Your task to perform on an android device: Add "logitech g933" to the cart on amazon.com Image 0: 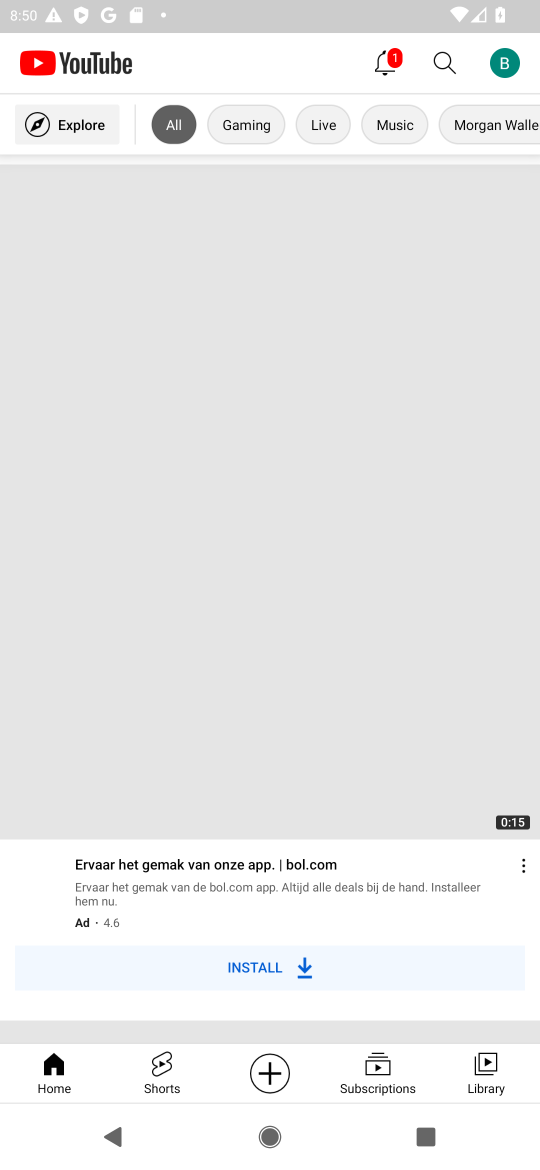
Step 0: press home button
Your task to perform on an android device: Add "logitech g933" to the cart on amazon.com Image 1: 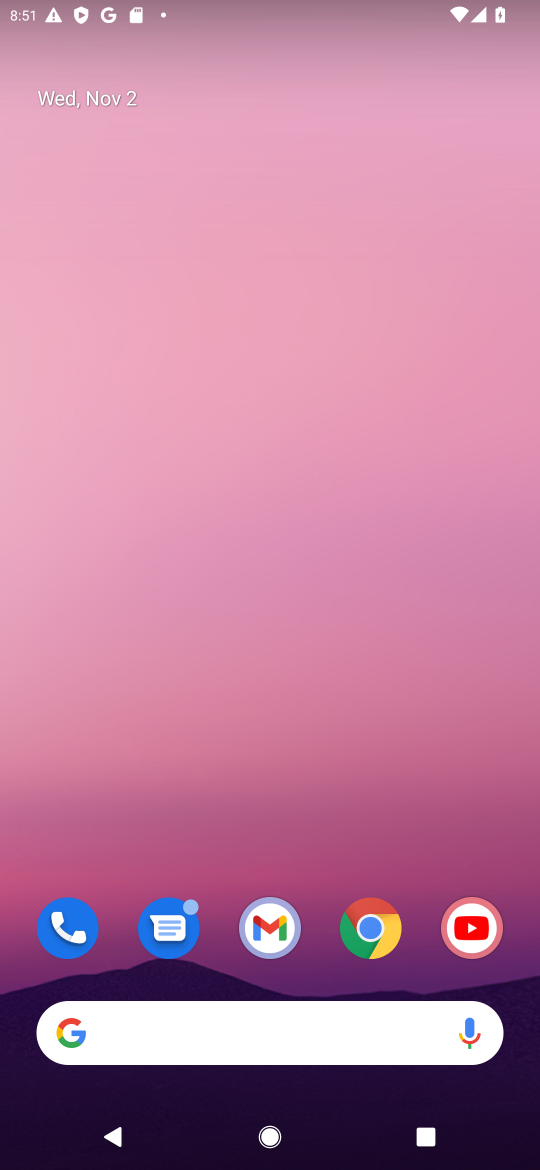
Step 1: click (366, 930)
Your task to perform on an android device: Add "logitech g933" to the cart on amazon.com Image 2: 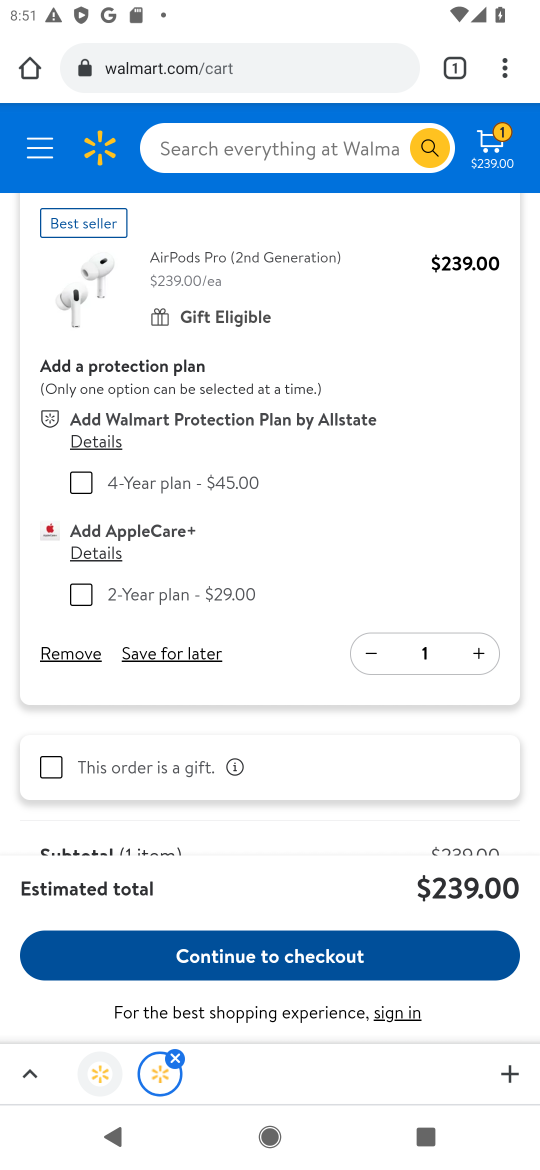
Step 2: click (204, 78)
Your task to perform on an android device: Add "logitech g933" to the cart on amazon.com Image 3: 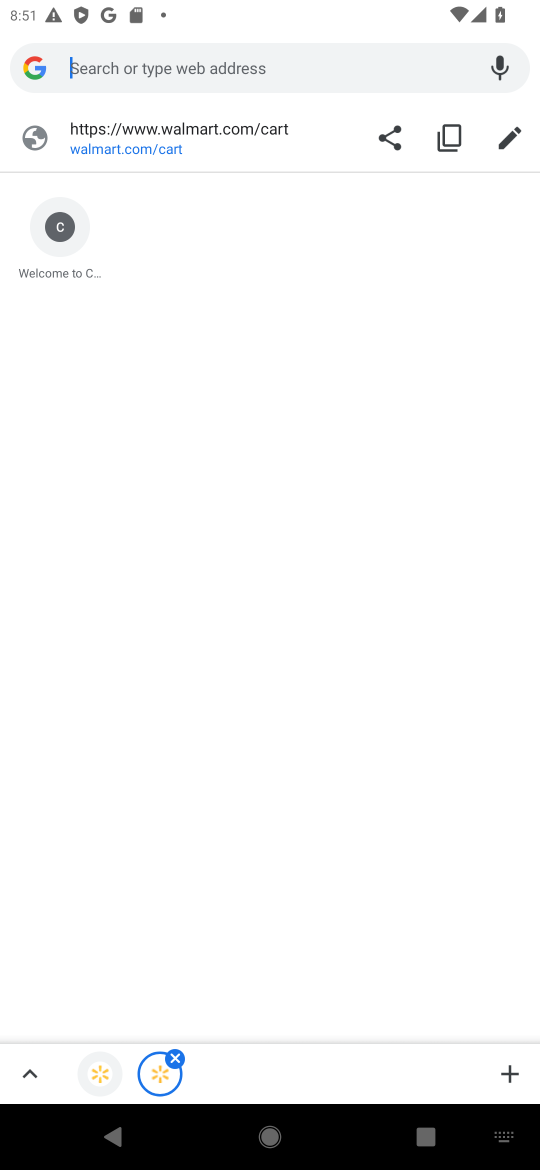
Step 3: type "amazon.com"
Your task to perform on an android device: Add "logitech g933" to the cart on amazon.com Image 4: 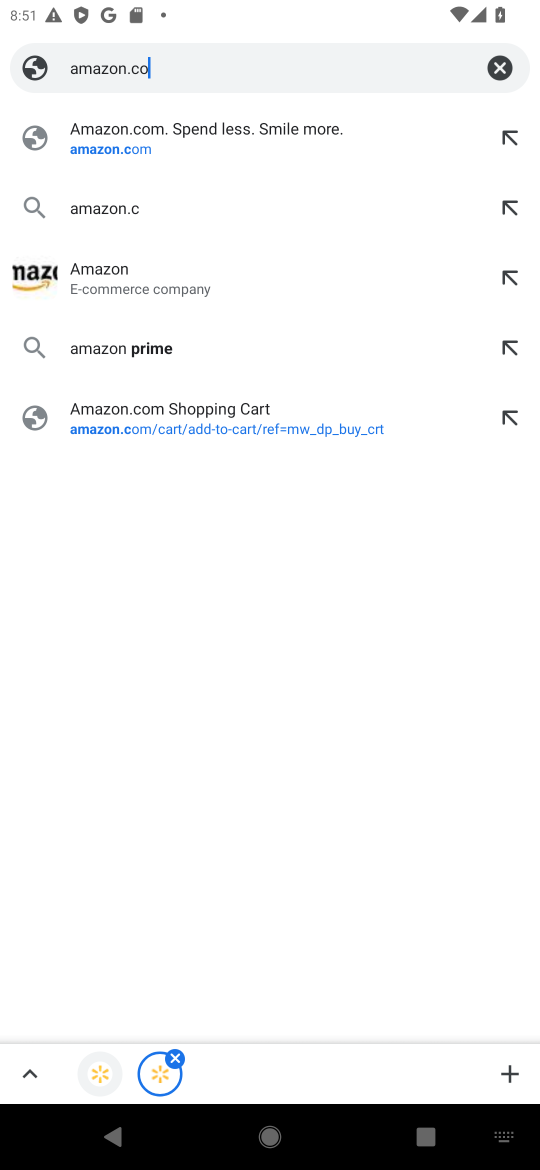
Step 4: type ""
Your task to perform on an android device: Add "logitech g933" to the cart on amazon.com Image 5: 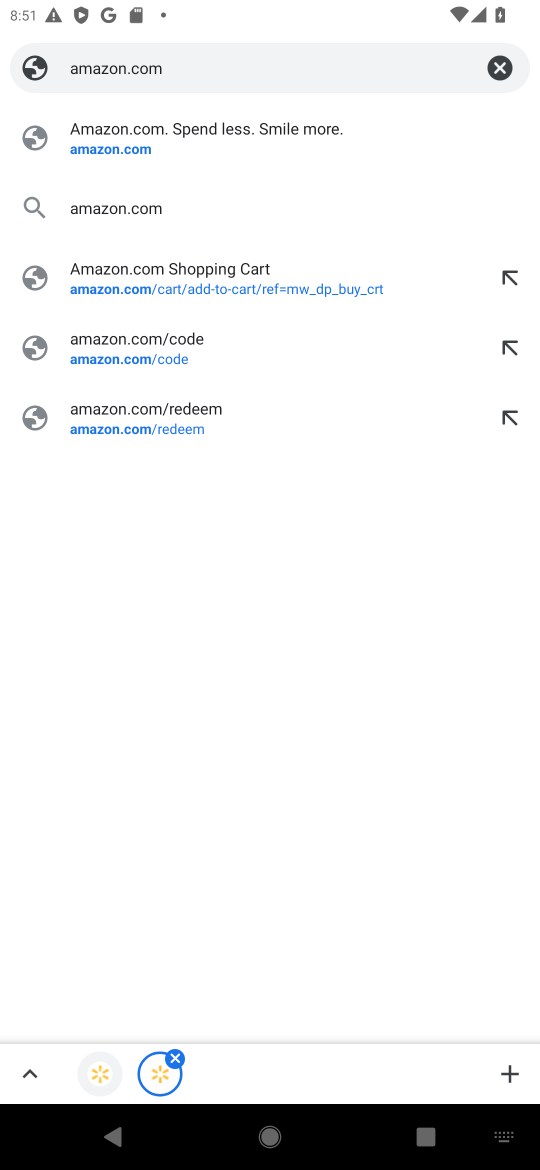
Step 5: click (193, 132)
Your task to perform on an android device: Add "logitech g933" to the cart on amazon.com Image 6: 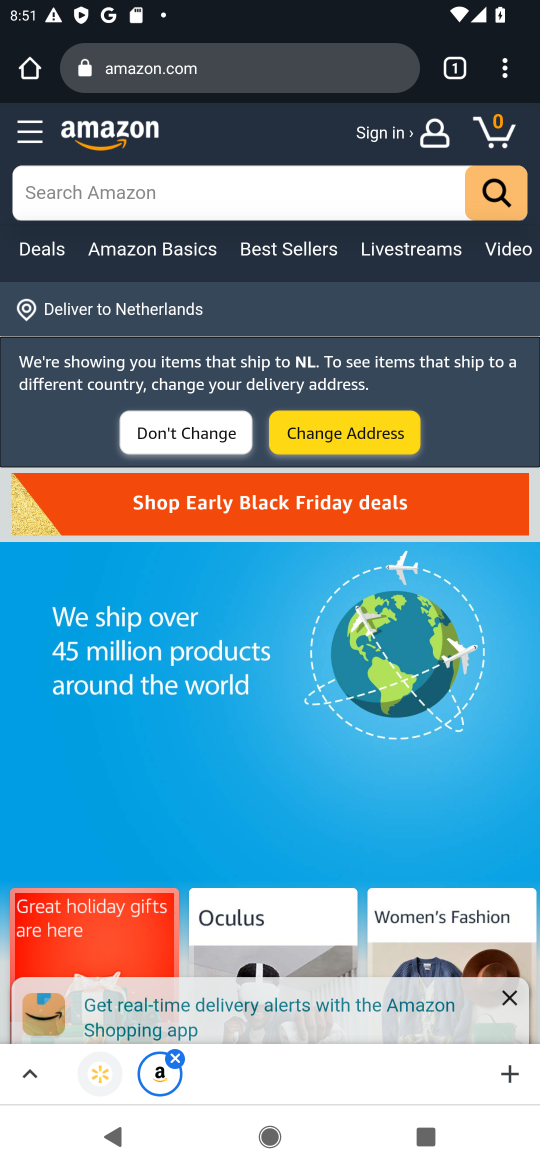
Step 6: click (189, 435)
Your task to perform on an android device: Add "logitech g933" to the cart on amazon.com Image 7: 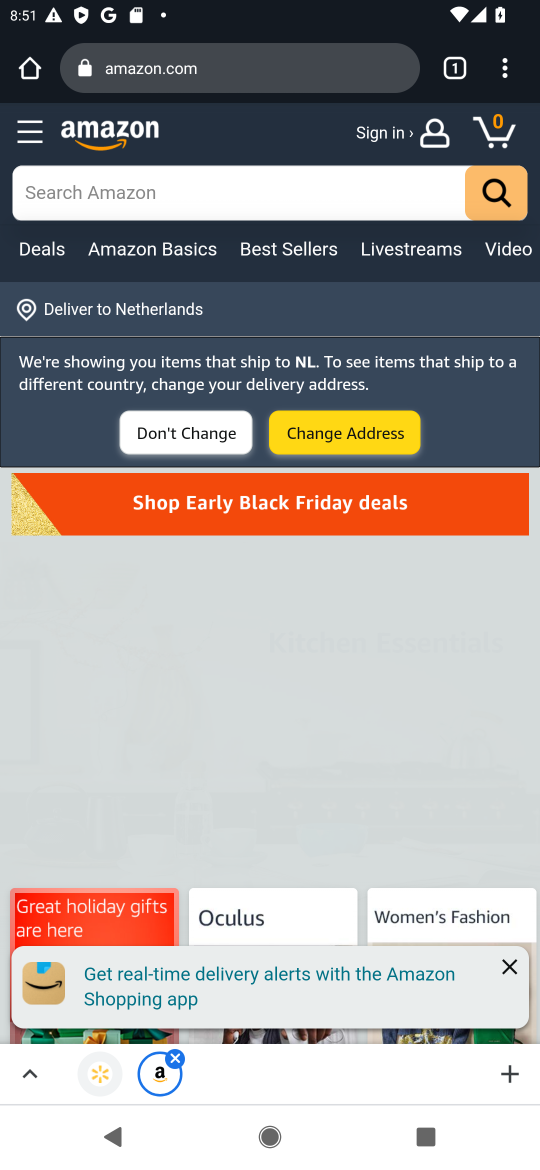
Step 7: click (169, 183)
Your task to perform on an android device: Add "logitech g933" to the cart on amazon.com Image 8: 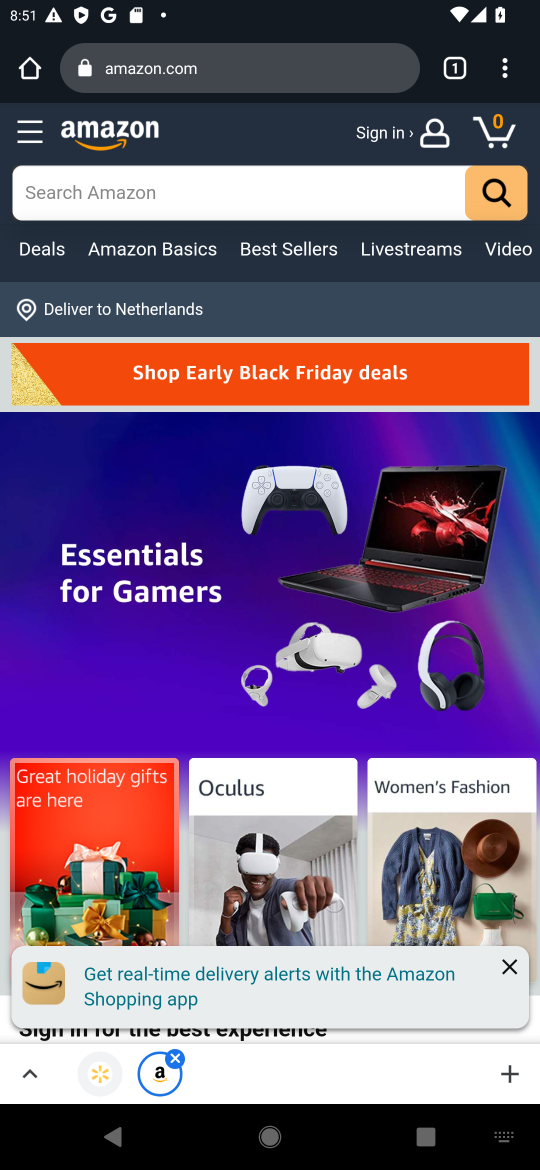
Step 8: type "logitech g933"
Your task to perform on an android device: Add "logitech g933" to the cart on amazon.com Image 9: 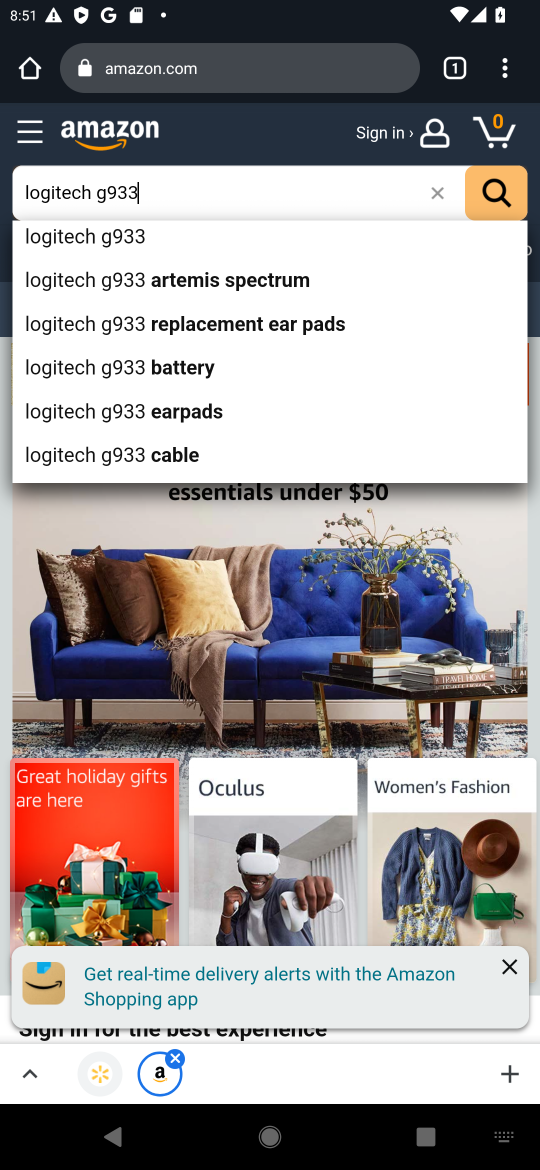
Step 9: click (68, 225)
Your task to perform on an android device: Add "logitech g933" to the cart on amazon.com Image 10: 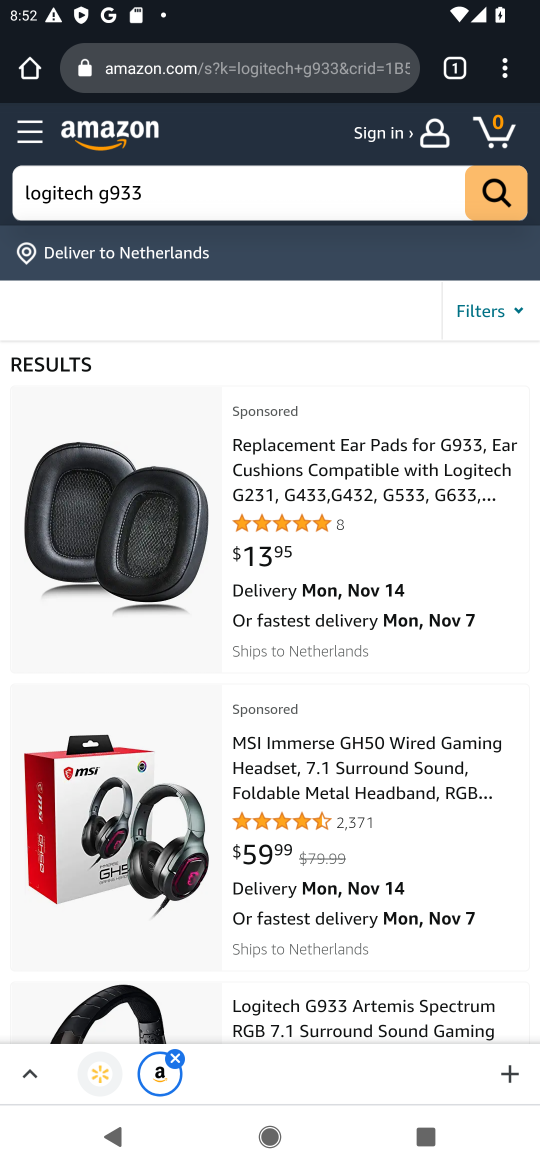
Step 10: drag from (280, 867) to (322, 463)
Your task to perform on an android device: Add "logitech g933" to the cart on amazon.com Image 11: 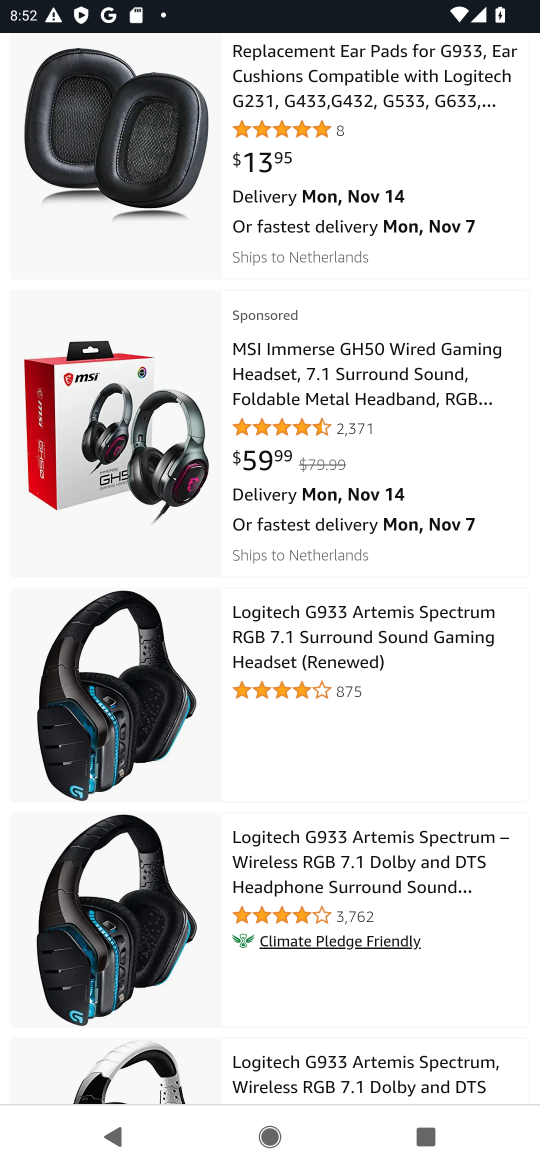
Step 11: click (297, 645)
Your task to perform on an android device: Add "logitech g933" to the cart on amazon.com Image 12: 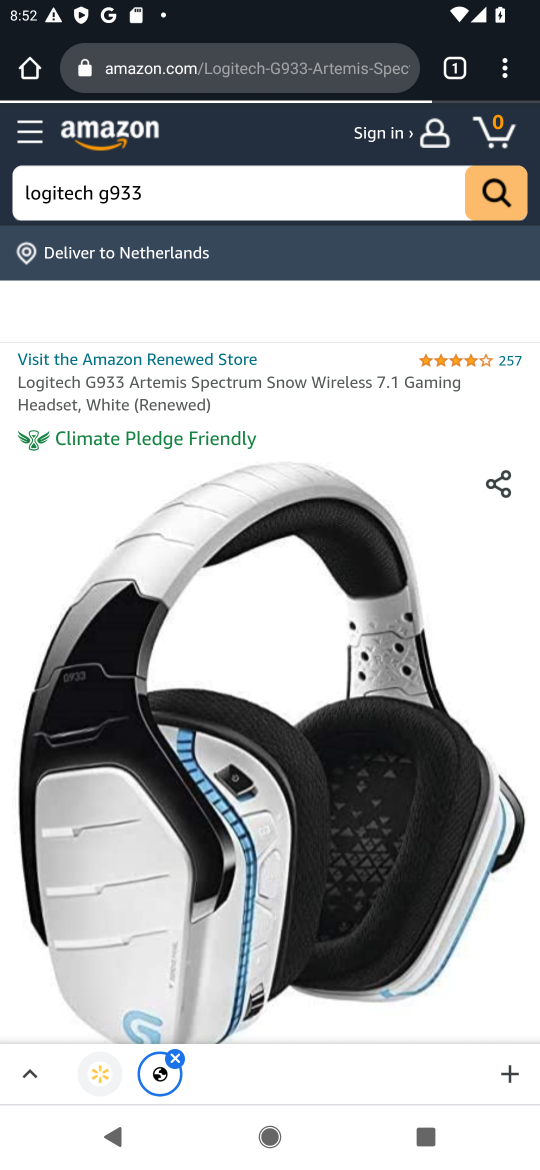
Step 12: drag from (350, 871) to (424, 464)
Your task to perform on an android device: Add "logitech g933" to the cart on amazon.com Image 13: 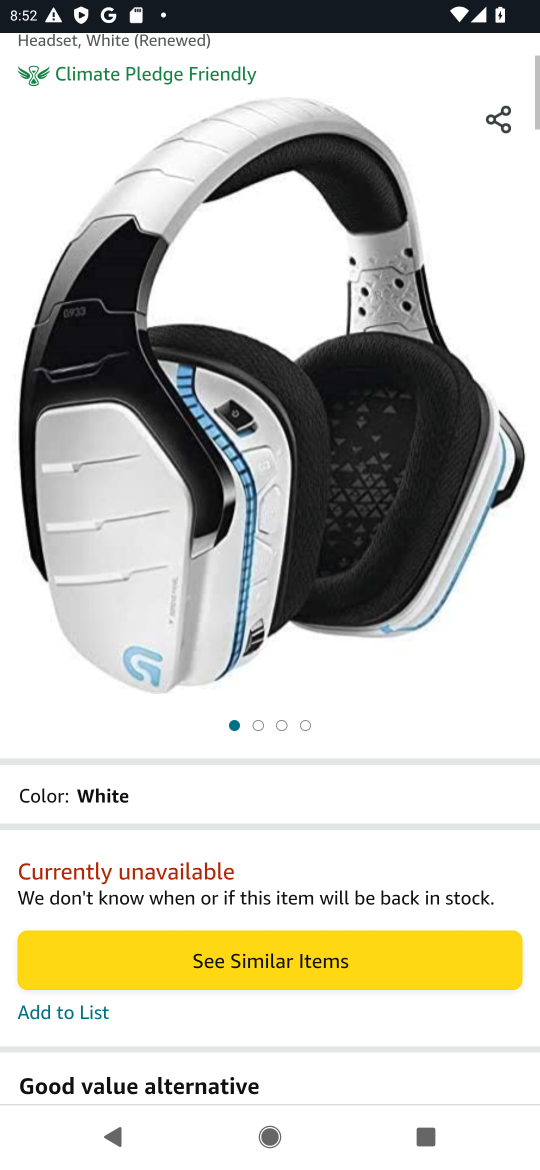
Step 13: drag from (348, 810) to (353, 662)
Your task to perform on an android device: Add "logitech g933" to the cart on amazon.com Image 14: 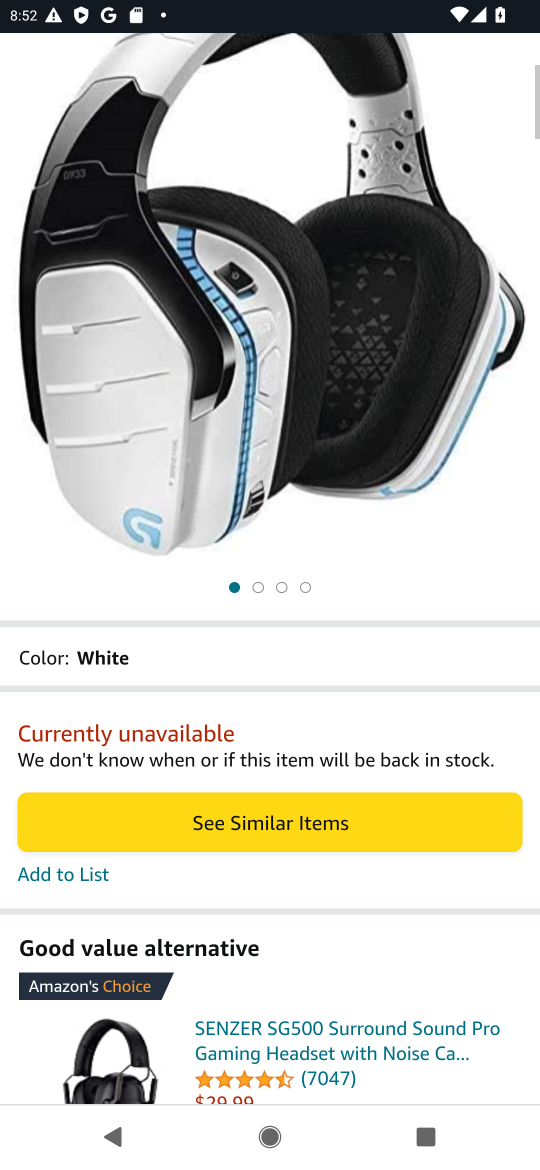
Step 14: click (304, 952)
Your task to perform on an android device: Add "logitech g933" to the cart on amazon.com Image 15: 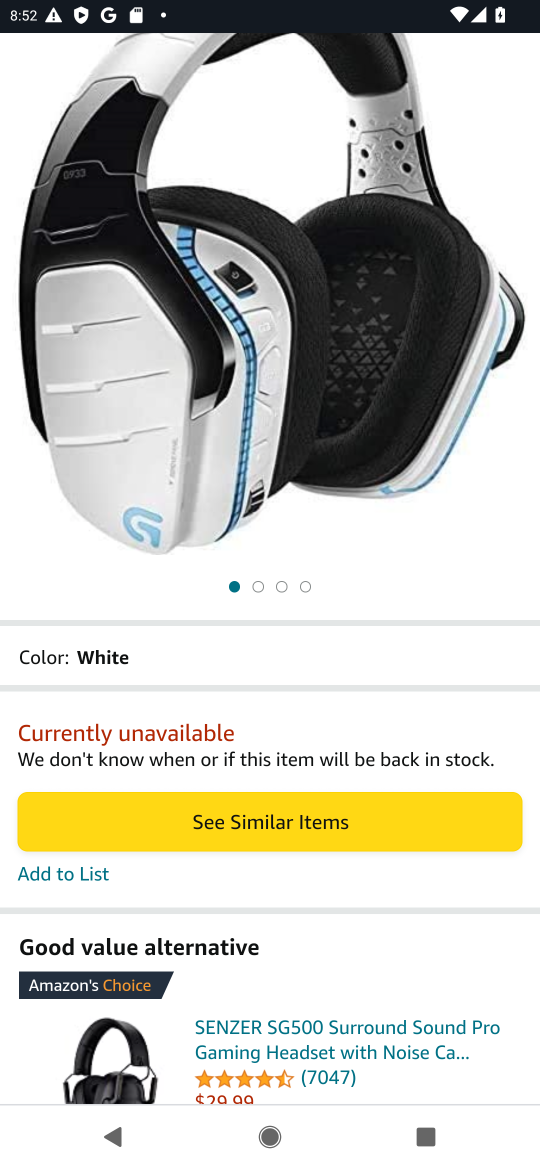
Step 15: click (303, 836)
Your task to perform on an android device: Add "logitech g933" to the cart on amazon.com Image 16: 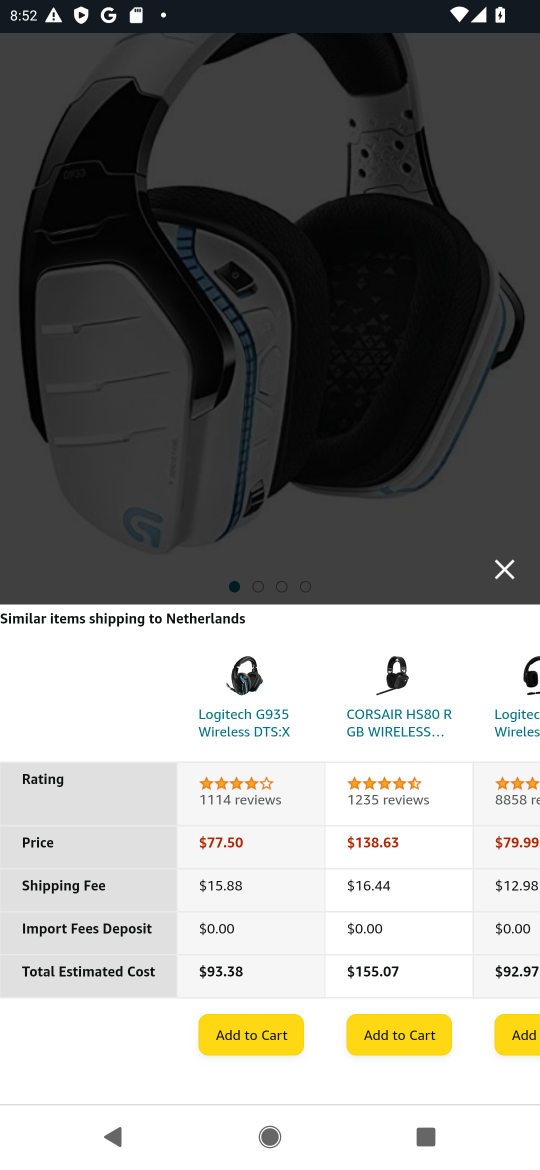
Step 16: click (278, 1044)
Your task to perform on an android device: Add "logitech g933" to the cart on amazon.com Image 17: 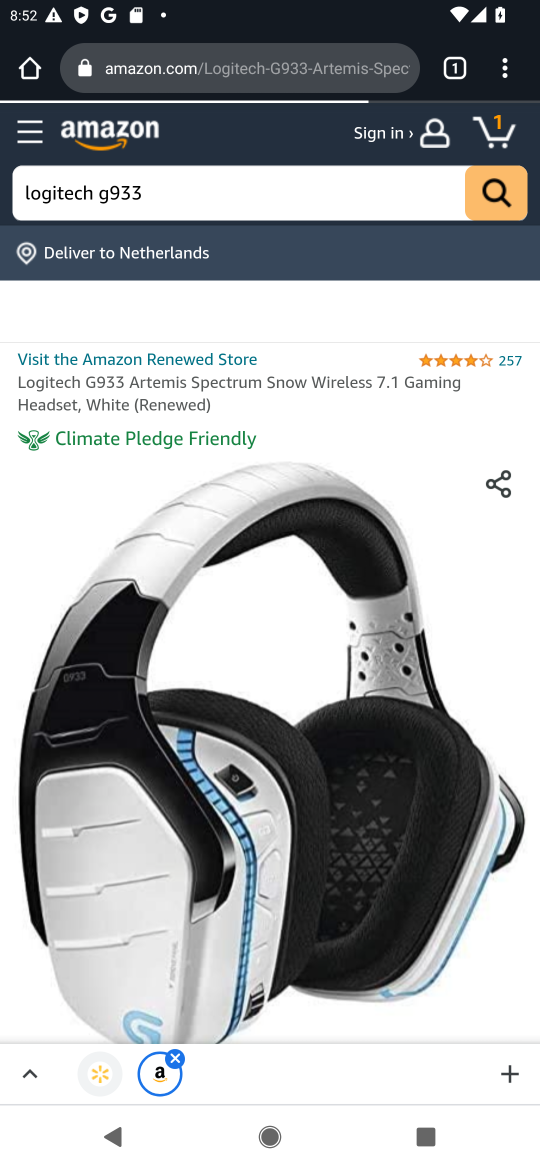
Step 17: drag from (302, 806) to (382, 370)
Your task to perform on an android device: Add "logitech g933" to the cart on amazon.com Image 18: 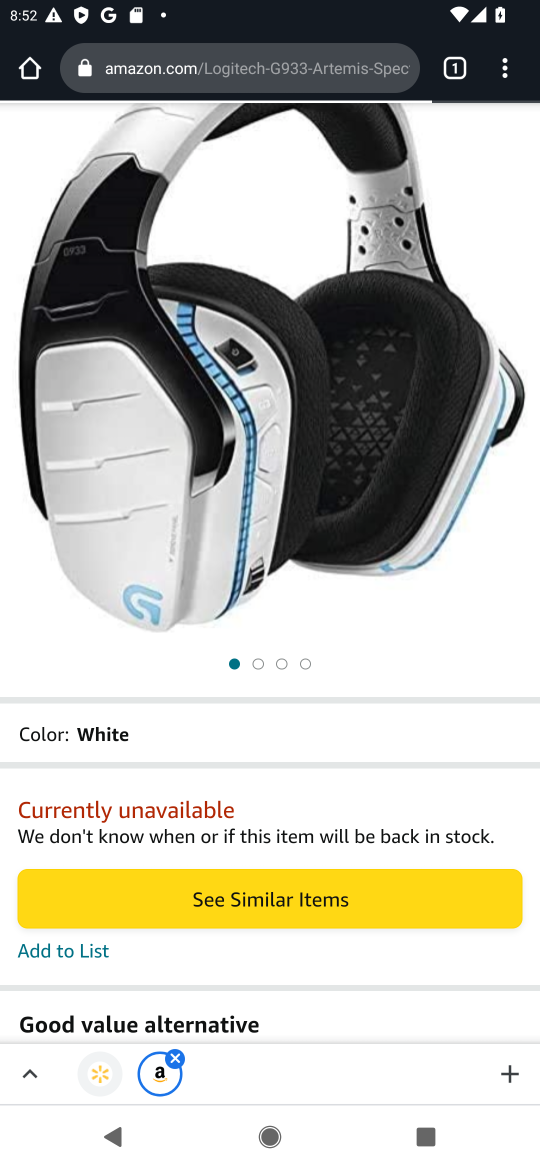
Step 18: drag from (410, 464) to (349, 1109)
Your task to perform on an android device: Add "logitech g933" to the cart on amazon.com Image 19: 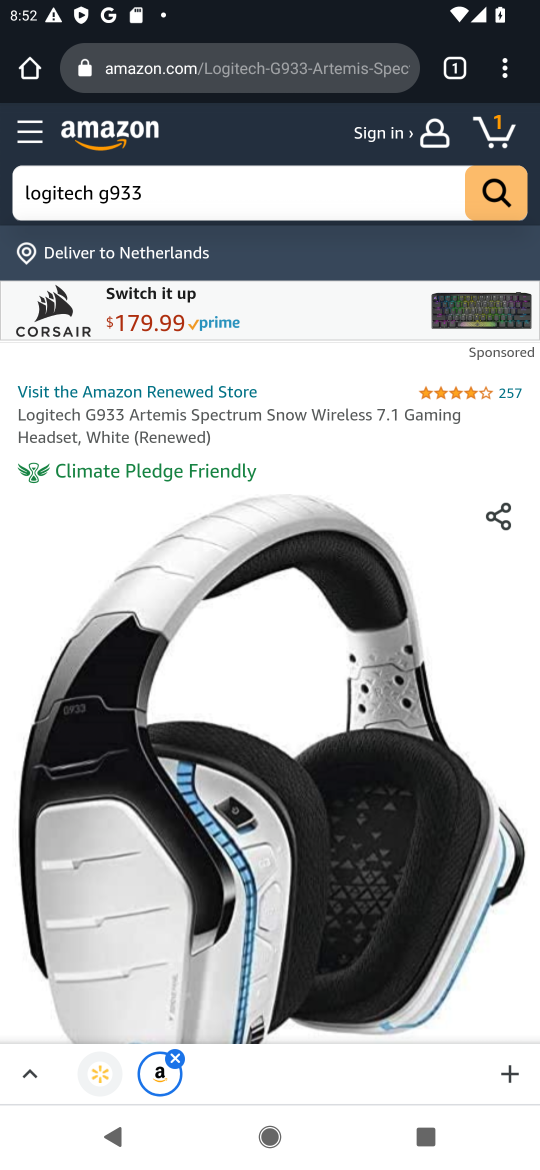
Step 19: click (494, 120)
Your task to perform on an android device: Add "logitech g933" to the cart on amazon.com Image 20: 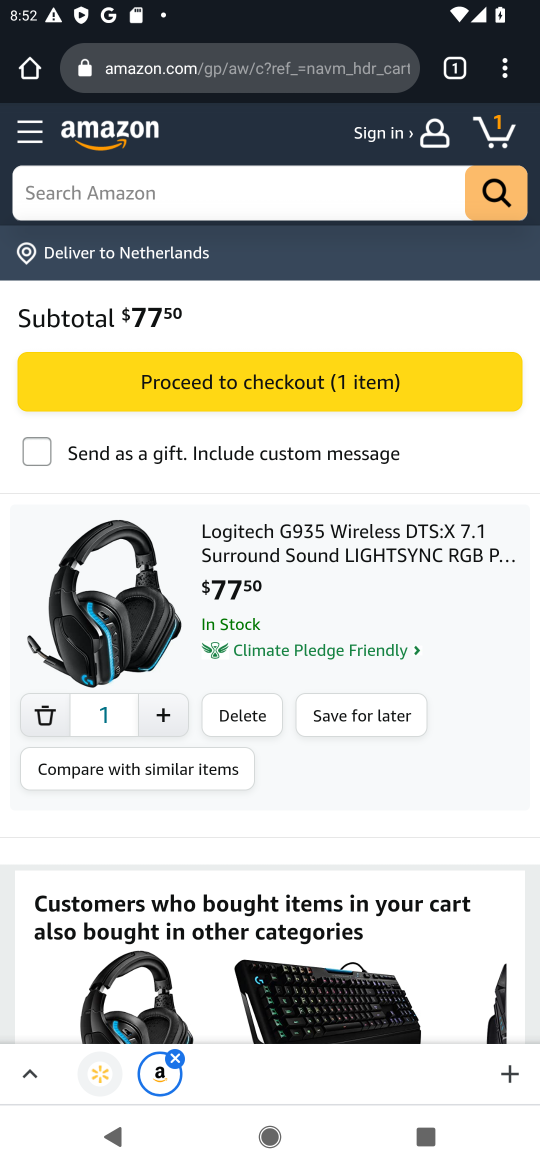
Step 20: task complete